Your task to perform on an android device: Go to Google maps Image 0: 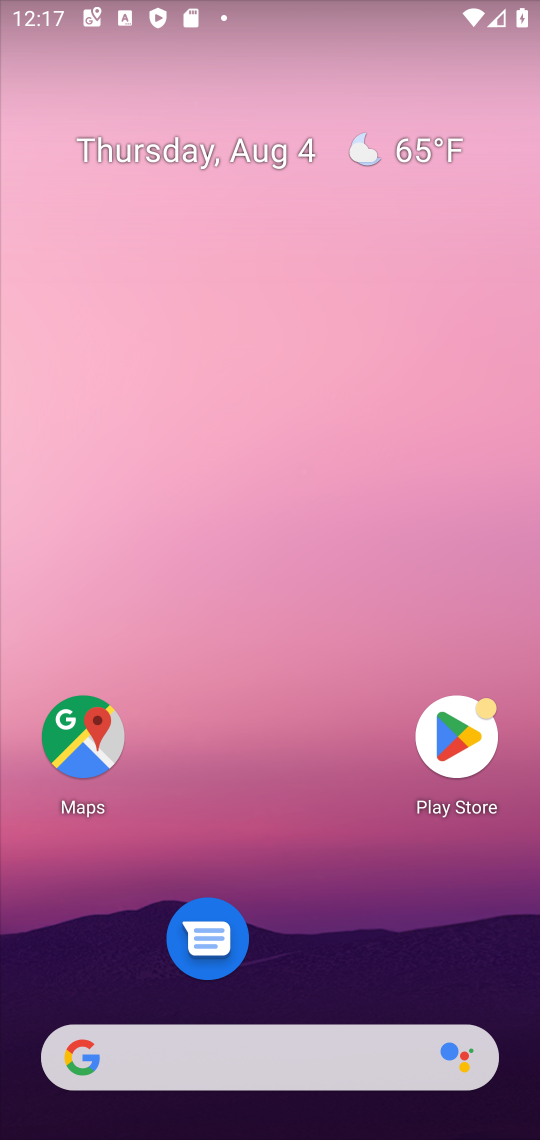
Step 0: click (66, 728)
Your task to perform on an android device: Go to Google maps Image 1: 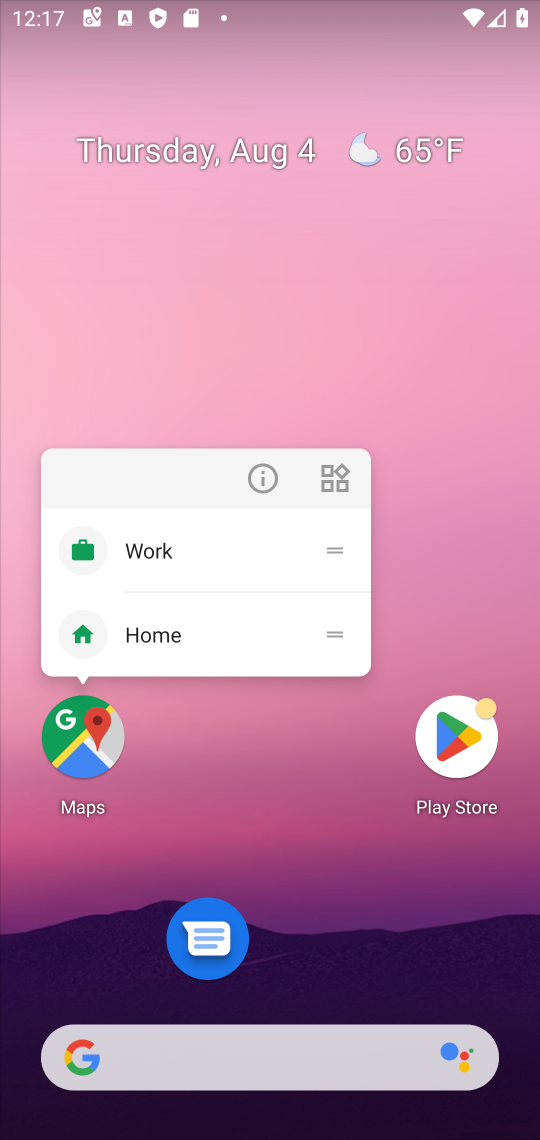
Step 1: click (66, 728)
Your task to perform on an android device: Go to Google maps Image 2: 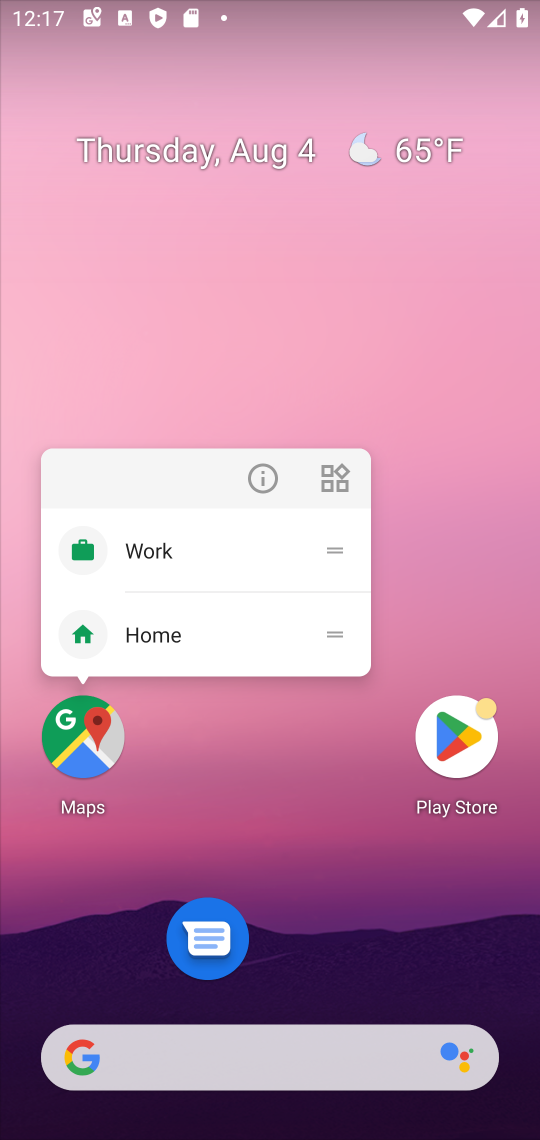
Step 2: click (66, 728)
Your task to perform on an android device: Go to Google maps Image 3: 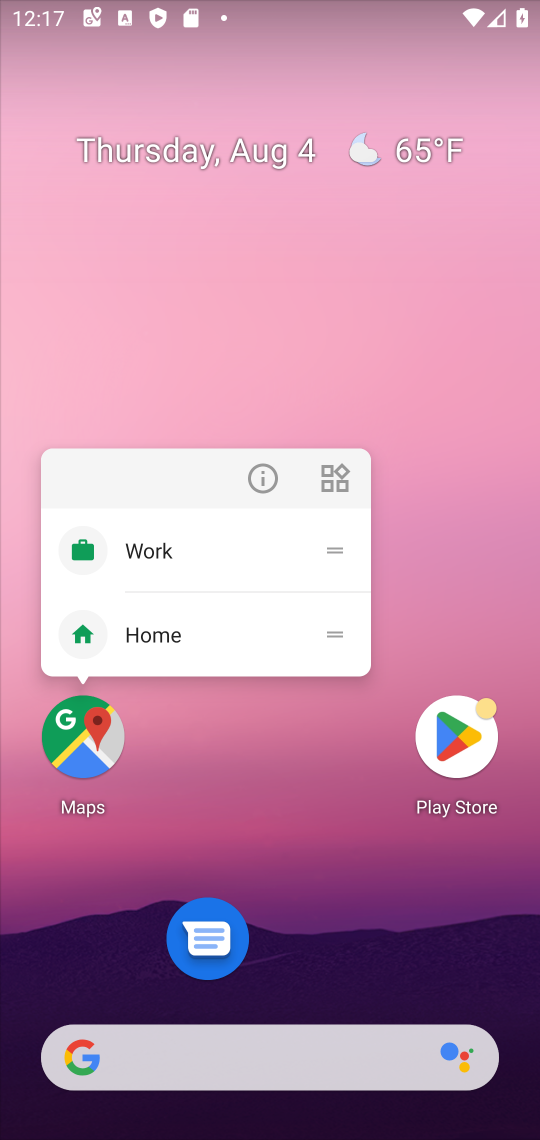
Step 3: click (95, 783)
Your task to perform on an android device: Go to Google maps Image 4: 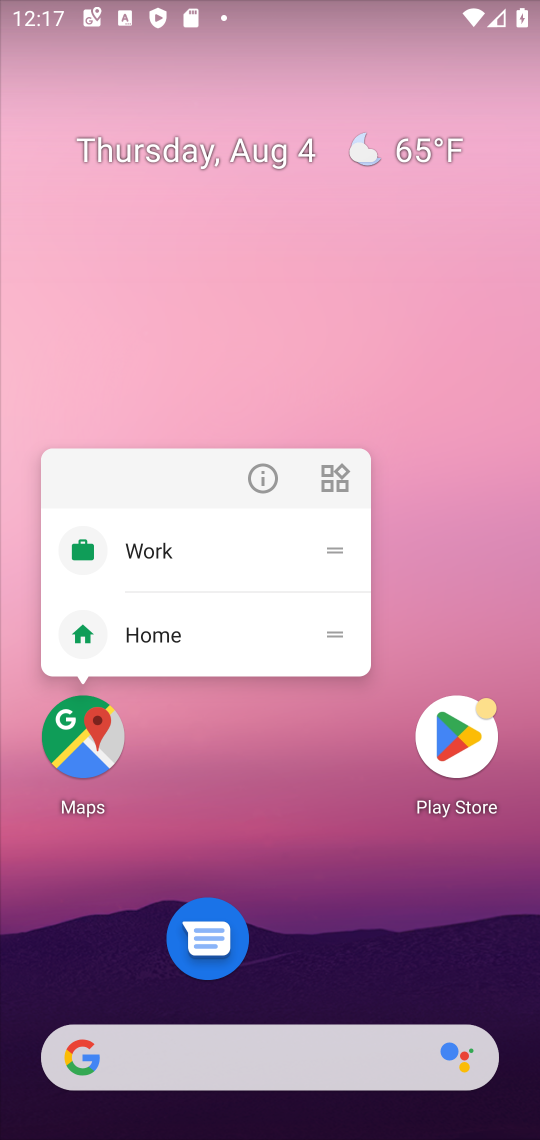
Step 4: click (95, 783)
Your task to perform on an android device: Go to Google maps Image 5: 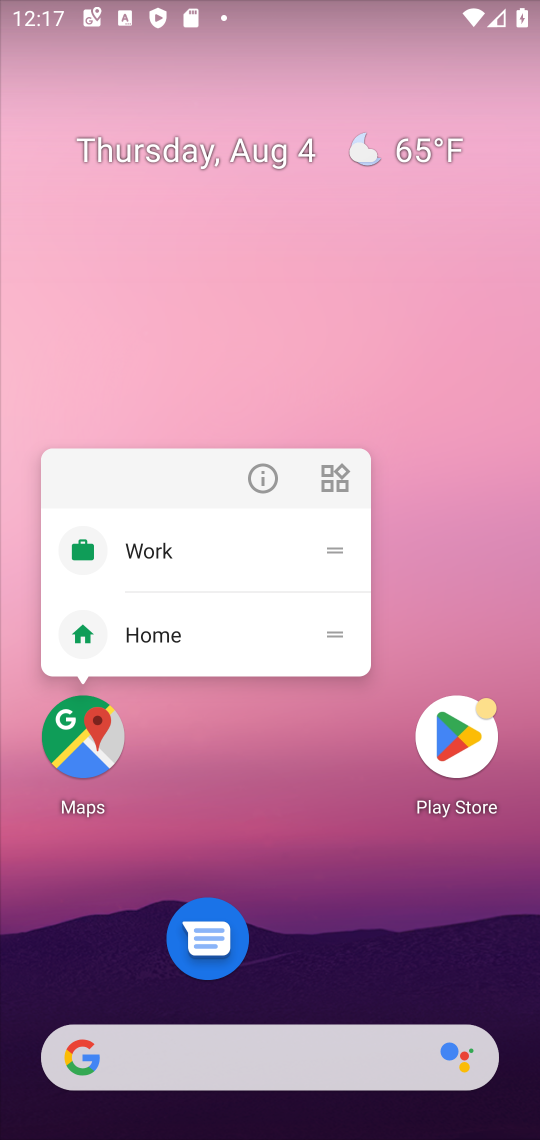
Step 5: click (95, 783)
Your task to perform on an android device: Go to Google maps Image 6: 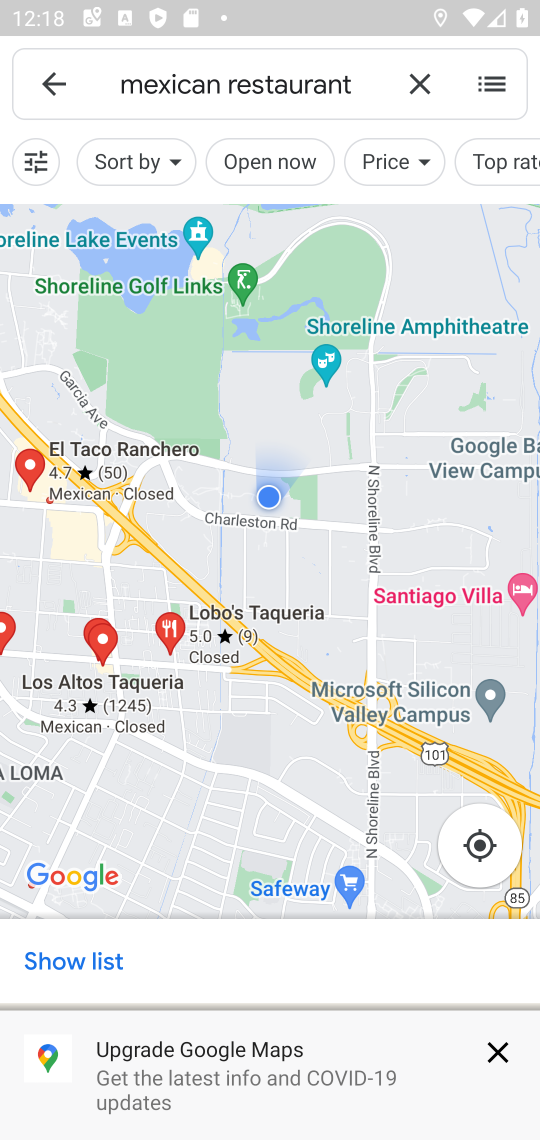
Step 6: task complete